Your task to perform on an android device: Open Reddit.com Image 0: 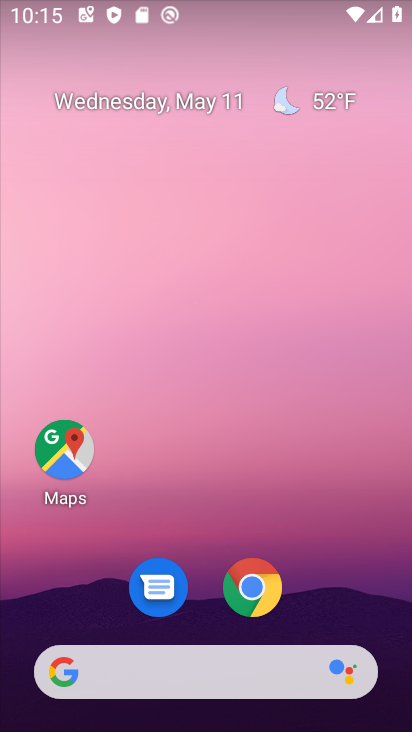
Step 0: drag from (245, 714) to (269, 351)
Your task to perform on an android device: Open Reddit.com Image 1: 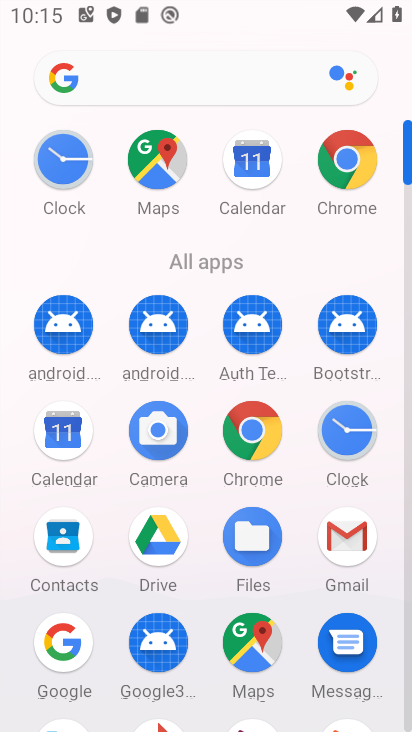
Step 1: click (360, 159)
Your task to perform on an android device: Open Reddit.com Image 2: 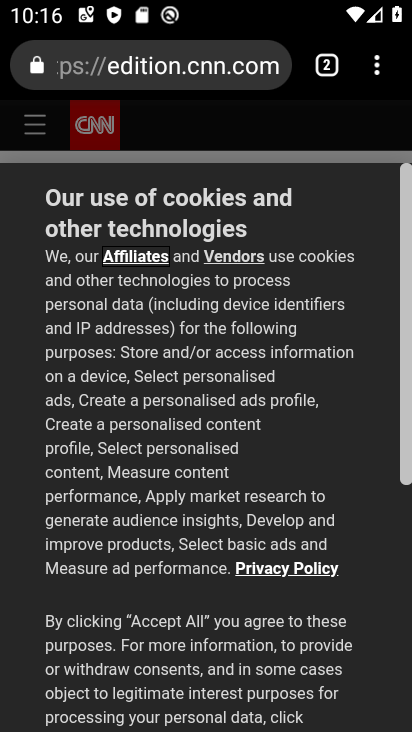
Step 2: click (193, 67)
Your task to perform on an android device: Open Reddit.com Image 3: 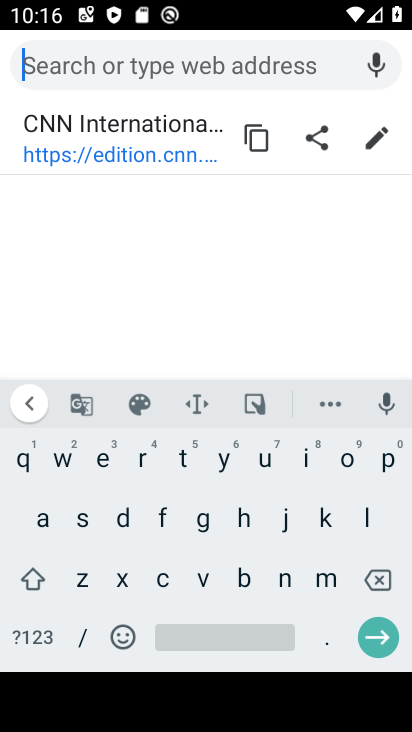
Step 3: click (138, 456)
Your task to perform on an android device: Open Reddit.com Image 4: 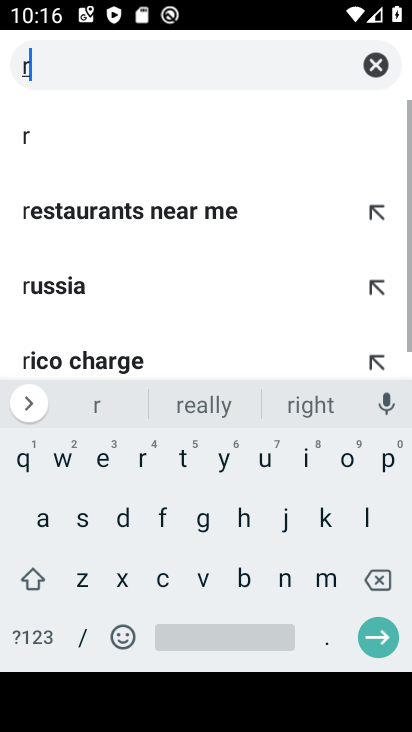
Step 4: click (102, 457)
Your task to perform on an android device: Open Reddit.com Image 5: 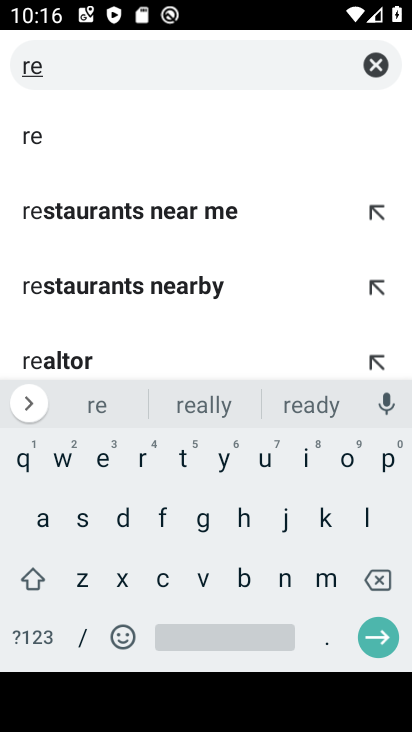
Step 5: click (120, 511)
Your task to perform on an android device: Open Reddit.com Image 6: 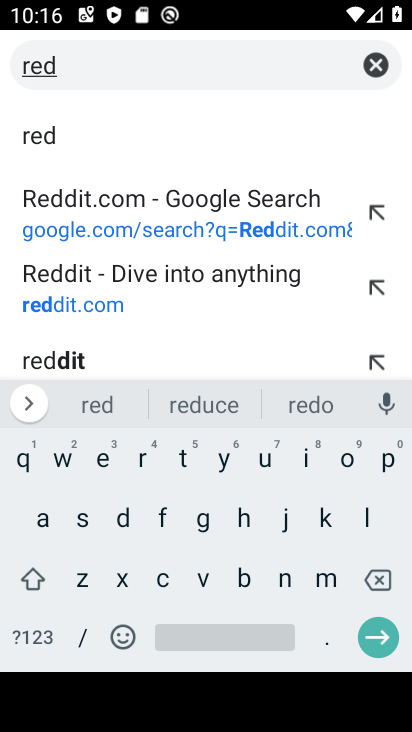
Step 6: click (173, 218)
Your task to perform on an android device: Open Reddit.com Image 7: 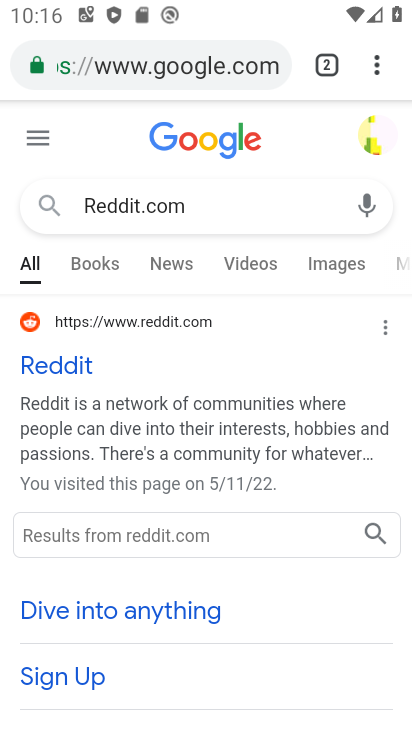
Step 7: click (63, 370)
Your task to perform on an android device: Open Reddit.com Image 8: 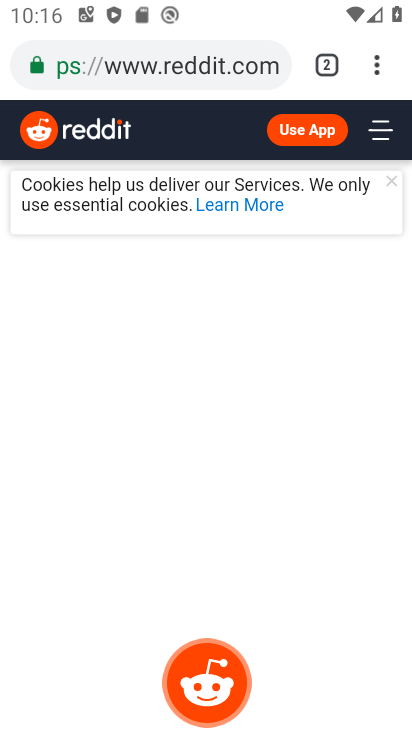
Step 8: task complete